Your task to perform on an android device: change your default location settings in chrome Image 0: 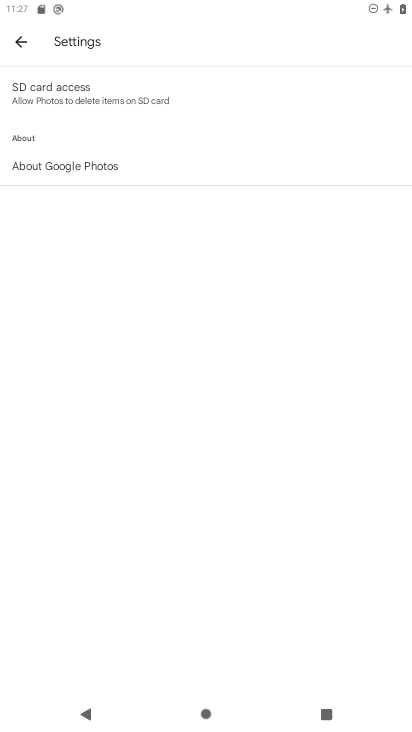
Step 0: press home button
Your task to perform on an android device: change your default location settings in chrome Image 1: 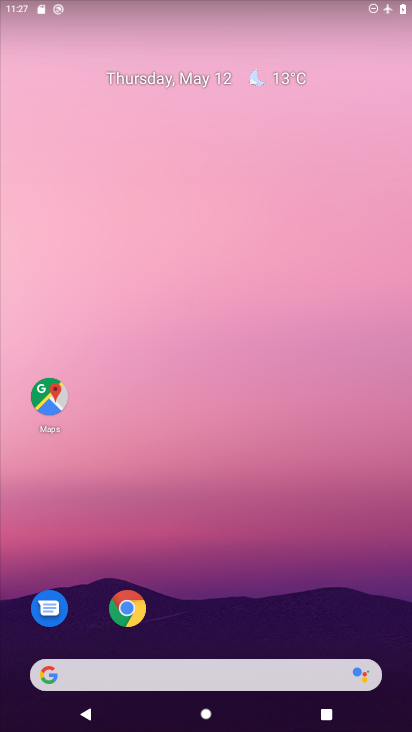
Step 1: click (125, 606)
Your task to perform on an android device: change your default location settings in chrome Image 2: 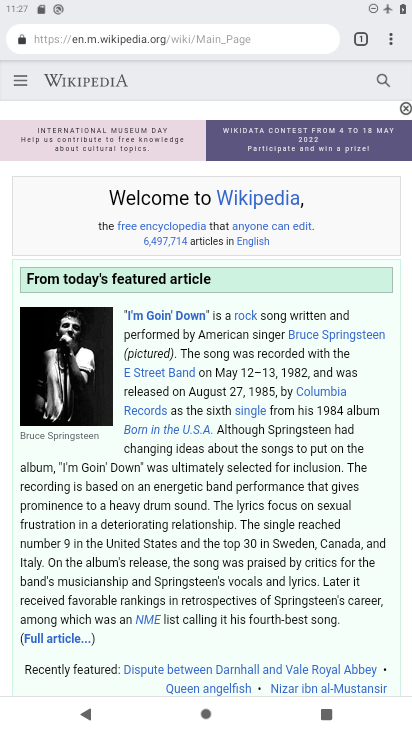
Step 2: click (380, 37)
Your task to perform on an android device: change your default location settings in chrome Image 3: 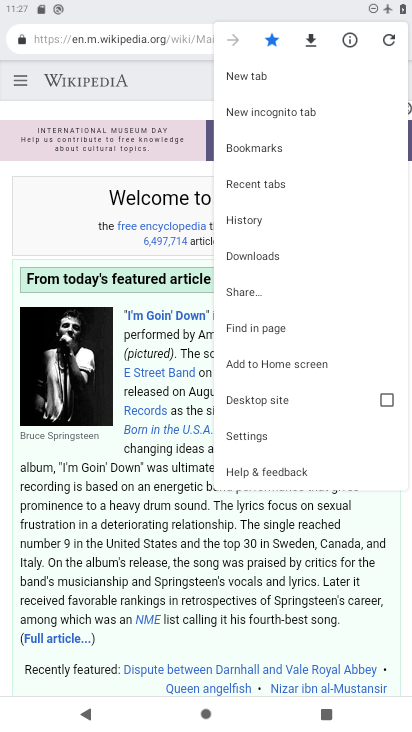
Step 3: click (257, 423)
Your task to perform on an android device: change your default location settings in chrome Image 4: 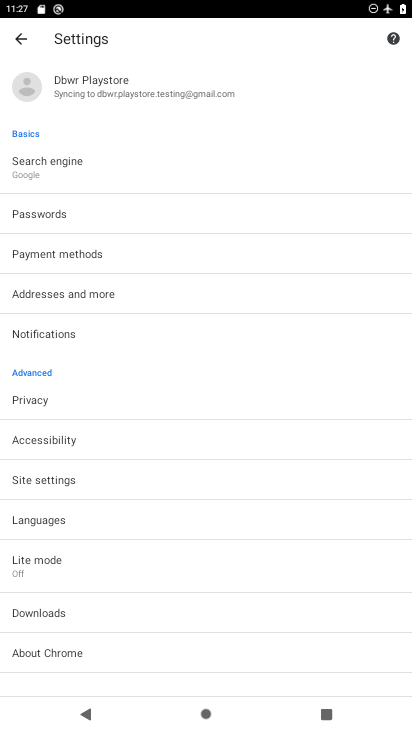
Step 4: click (111, 174)
Your task to perform on an android device: change your default location settings in chrome Image 5: 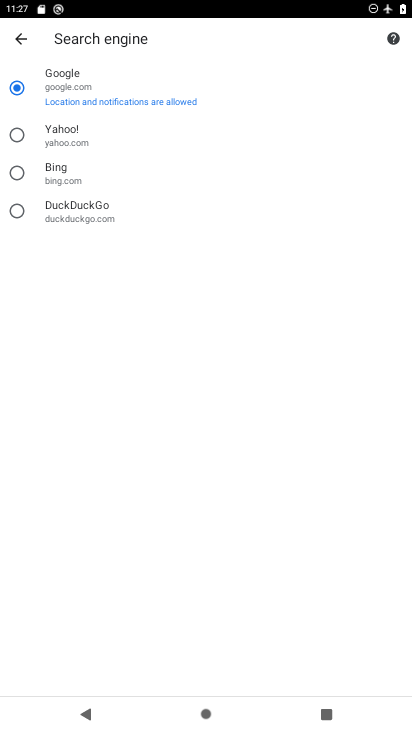
Step 5: click (103, 89)
Your task to perform on an android device: change your default location settings in chrome Image 6: 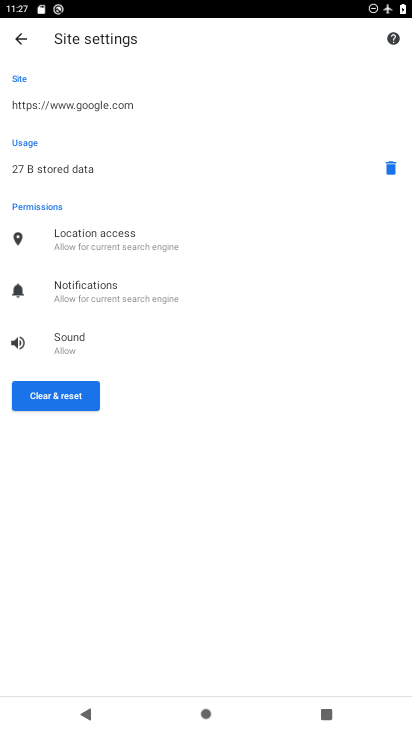
Step 6: press back button
Your task to perform on an android device: change your default location settings in chrome Image 7: 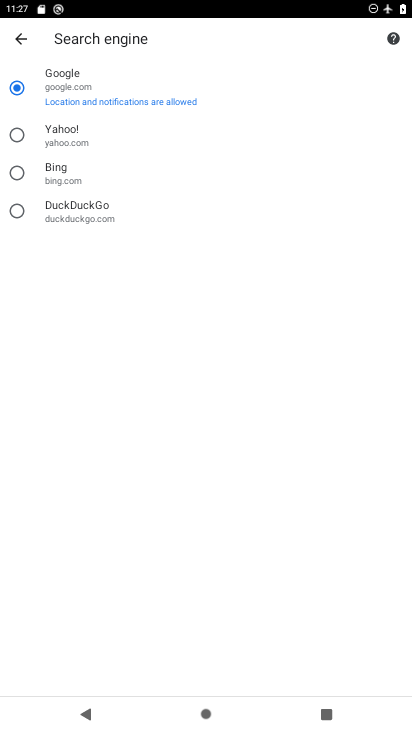
Step 7: click (25, 130)
Your task to perform on an android device: change your default location settings in chrome Image 8: 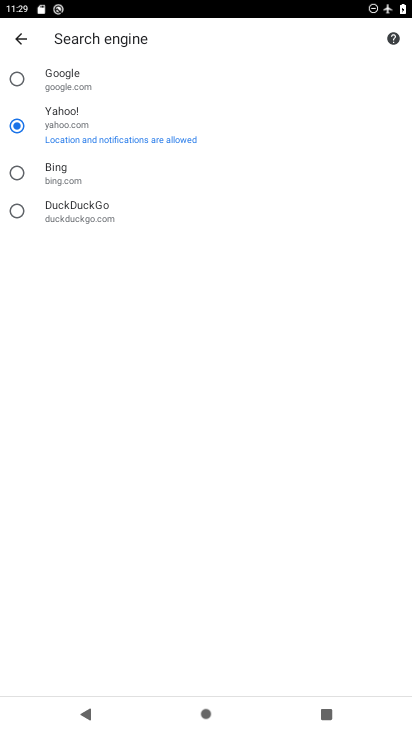
Step 8: task complete